Your task to perform on an android device: Go to Amazon Image 0: 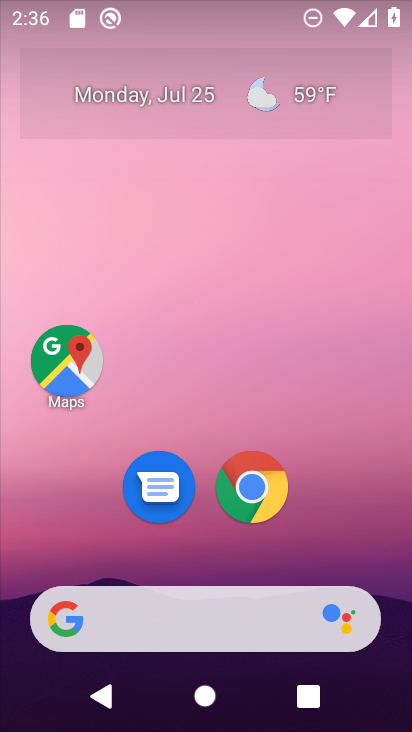
Step 0: click (232, 488)
Your task to perform on an android device: Go to Amazon Image 1: 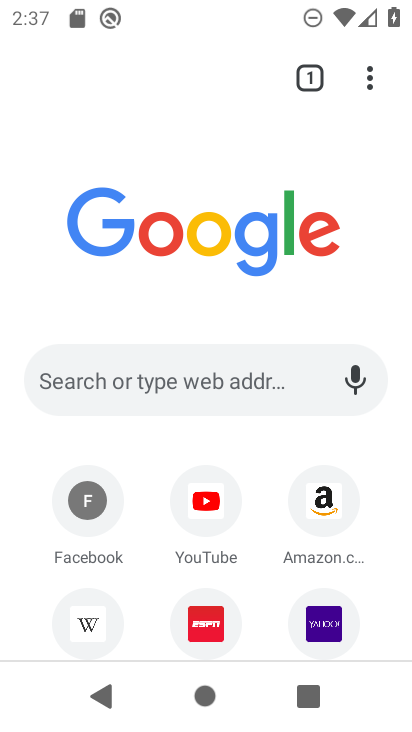
Step 1: click (332, 492)
Your task to perform on an android device: Go to Amazon Image 2: 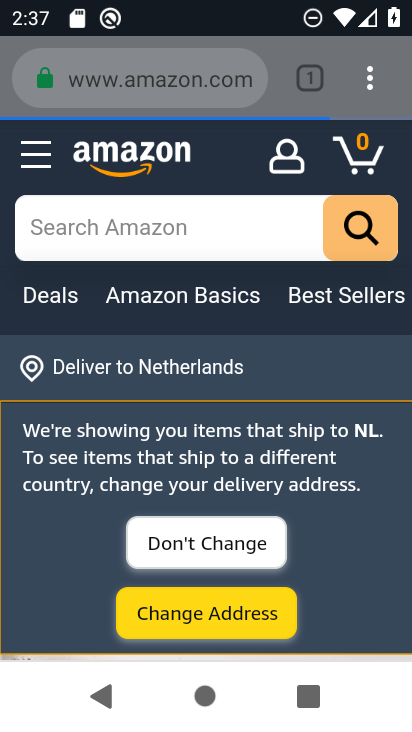
Step 2: task complete